Your task to perform on an android device: Open calendar and show me the first week of next month Image 0: 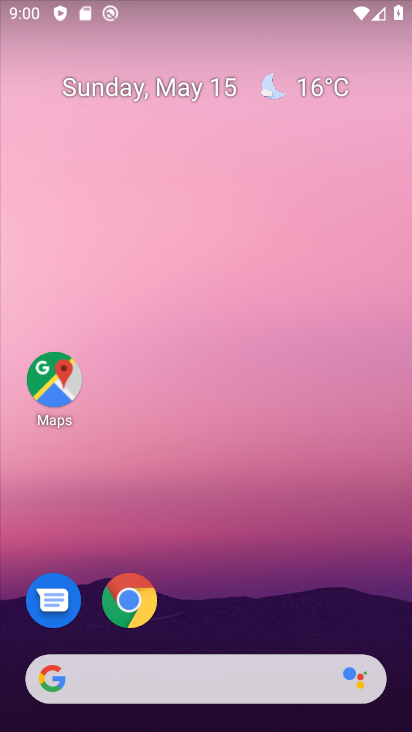
Step 0: drag from (235, 599) to (253, 150)
Your task to perform on an android device: Open calendar and show me the first week of next month Image 1: 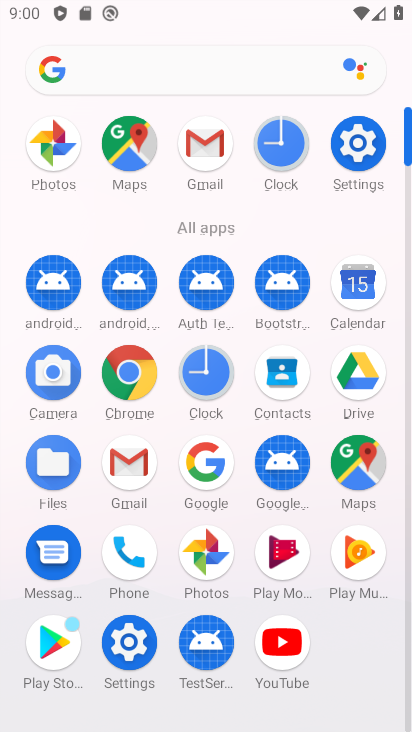
Step 1: click (362, 297)
Your task to perform on an android device: Open calendar and show me the first week of next month Image 2: 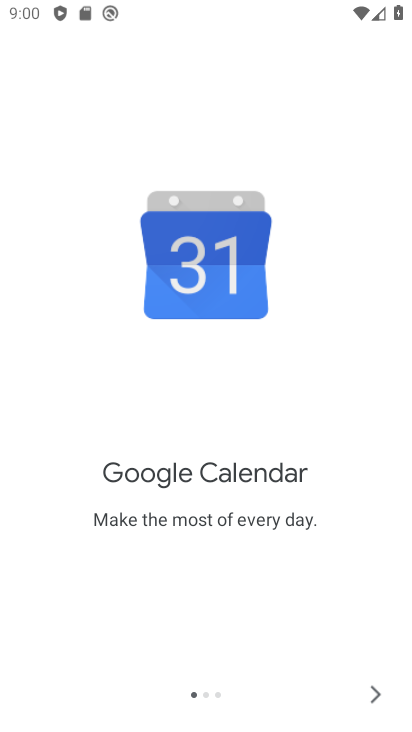
Step 2: click (369, 698)
Your task to perform on an android device: Open calendar and show me the first week of next month Image 3: 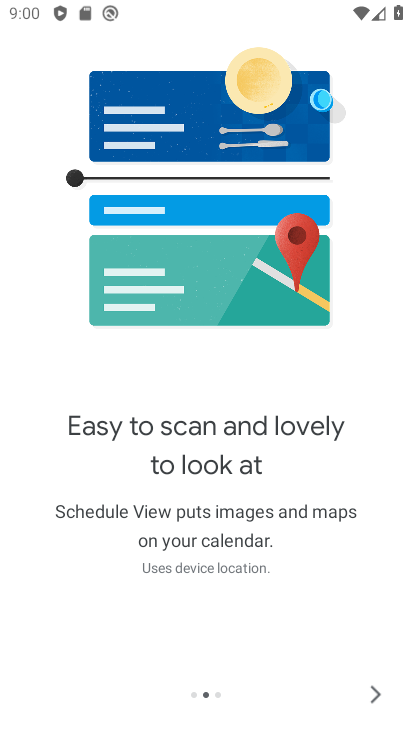
Step 3: click (369, 698)
Your task to perform on an android device: Open calendar and show me the first week of next month Image 4: 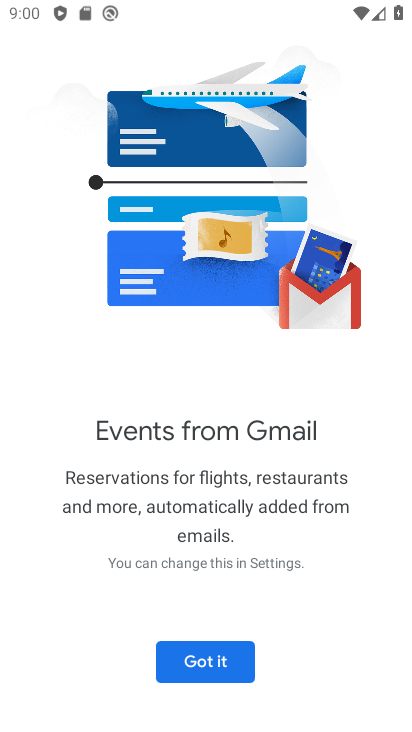
Step 4: click (217, 665)
Your task to perform on an android device: Open calendar and show me the first week of next month Image 5: 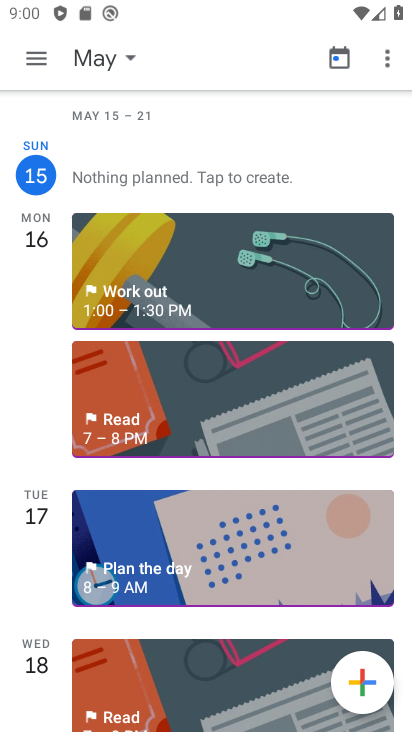
Step 5: click (113, 54)
Your task to perform on an android device: Open calendar and show me the first week of next month Image 6: 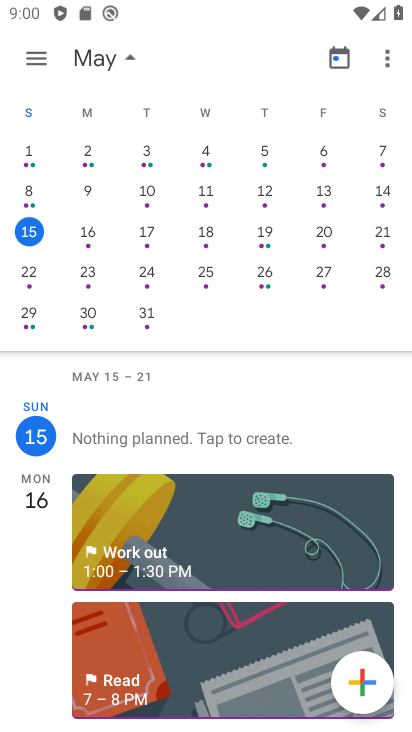
Step 6: drag from (385, 267) to (0, 300)
Your task to perform on an android device: Open calendar and show me the first week of next month Image 7: 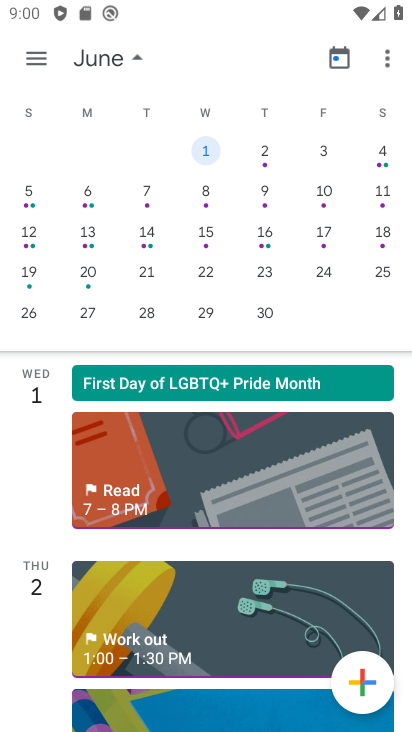
Step 7: click (264, 160)
Your task to perform on an android device: Open calendar and show me the first week of next month Image 8: 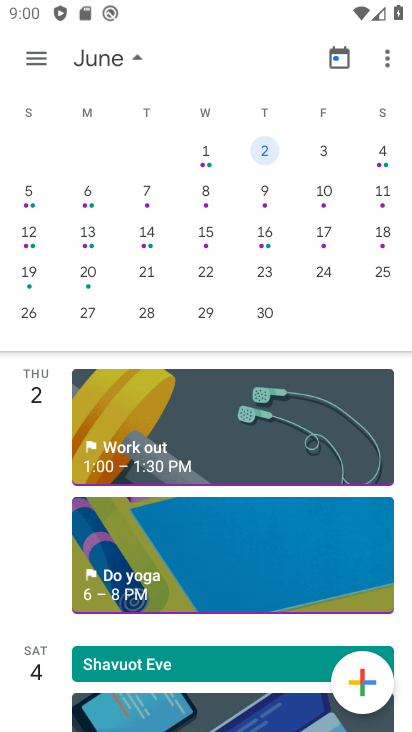
Step 8: click (320, 164)
Your task to perform on an android device: Open calendar and show me the first week of next month Image 9: 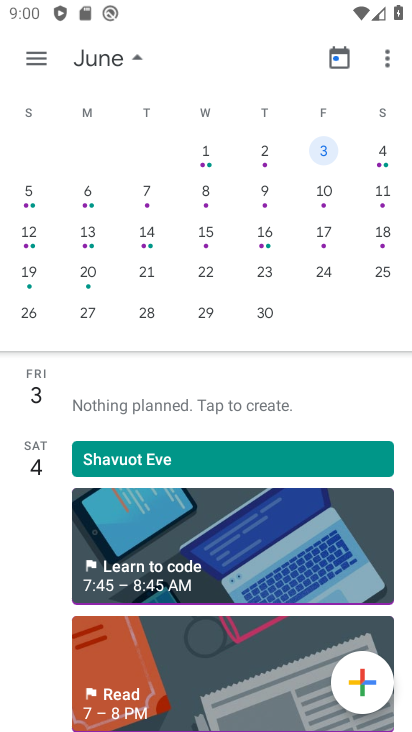
Step 9: click (376, 171)
Your task to perform on an android device: Open calendar and show me the first week of next month Image 10: 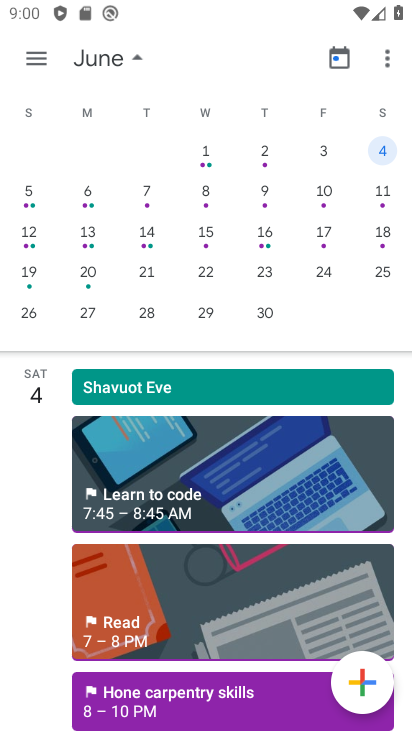
Step 10: task complete